Your task to perform on an android device: turn vacation reply on in the gmail app Image 0: 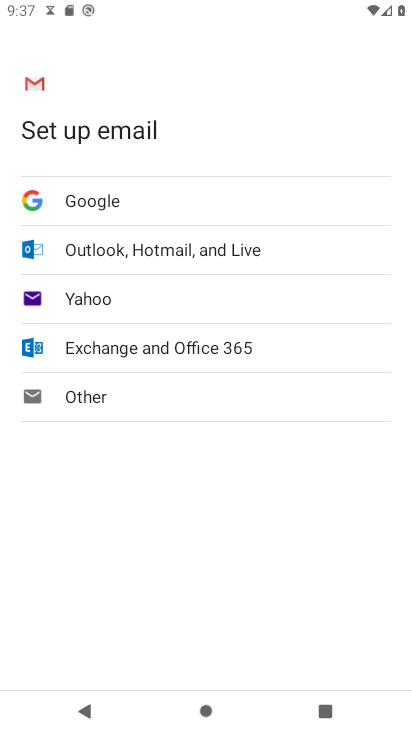
Step 0: press home button
Your task to perform on an android device: turn vacation reply on in the gmail app Image 1: 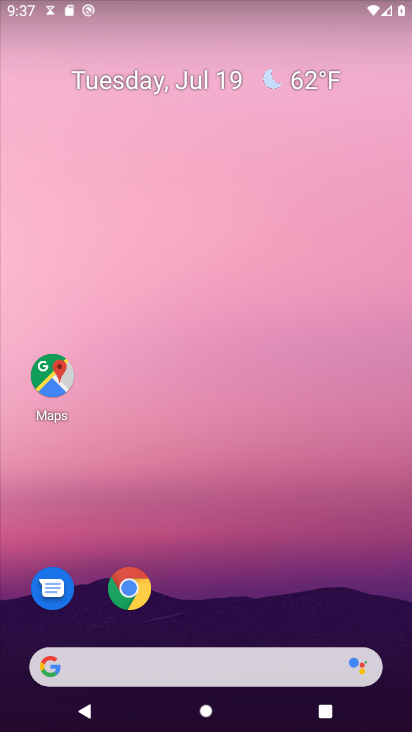
Step 1: drag from (177, 538) to (180, 102)
Your task to perform on an android device: turn vacation reply on in the gmail app Image 2: 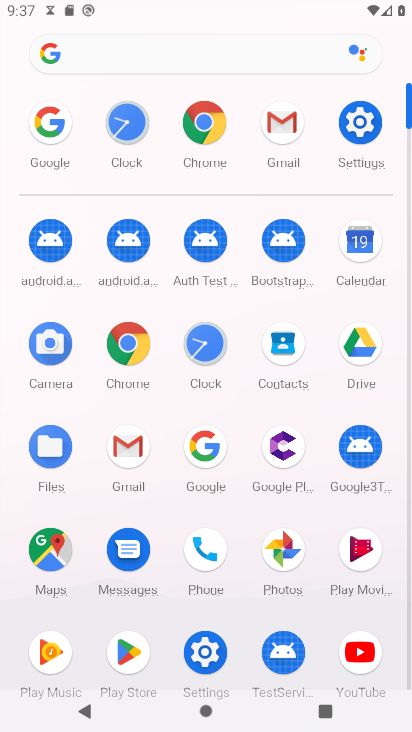
Step 2: click (273, 140)
Your task to perform on an android device: turn vacation reply on in the gmail app Image 3: 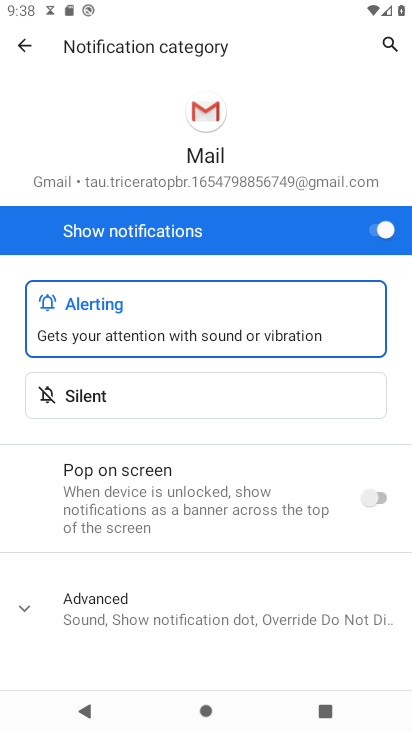
Step 3: click (19, 43)
Your task to perform on an android device: turn vacation reply on in the gmail app Image 4: 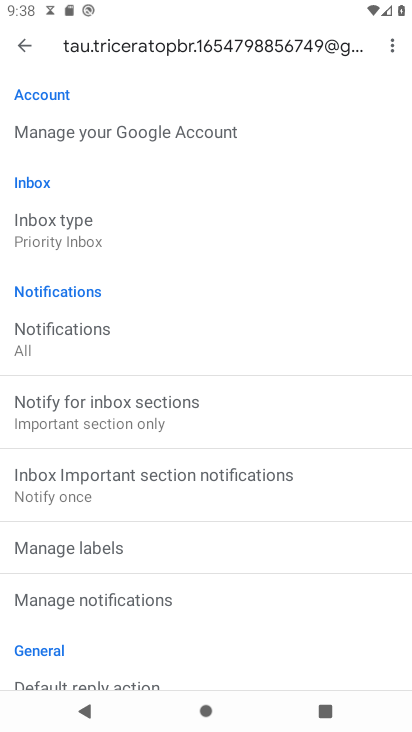
Step 4: drag from (172, 619) to (175, 190)
Your task to perform on an android device: turn vacation reply on in the gmail app Image 5: 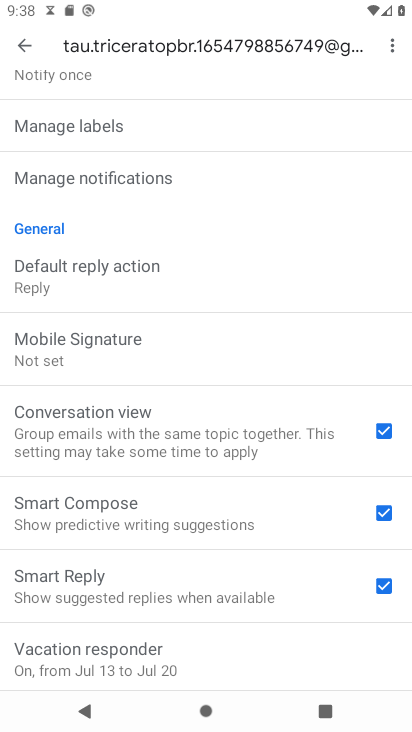
Step 5: click (130, 648)
Your task to perform on an android device: turn vacation reply on in the gmail app Image 6: 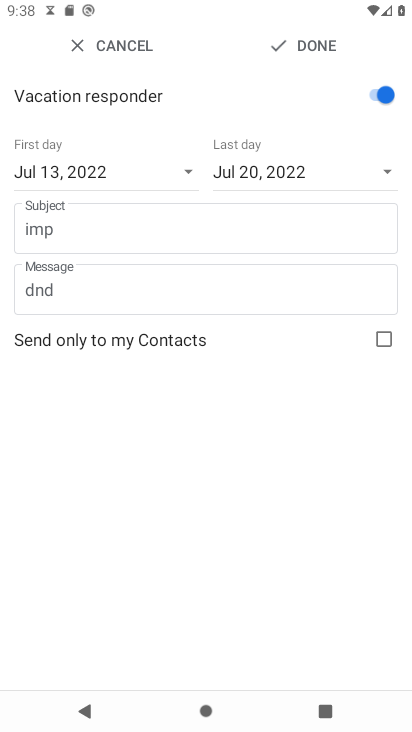
Step 6: task complete